Your task to perform on an android device: change the clock display to show seconds Image 0: 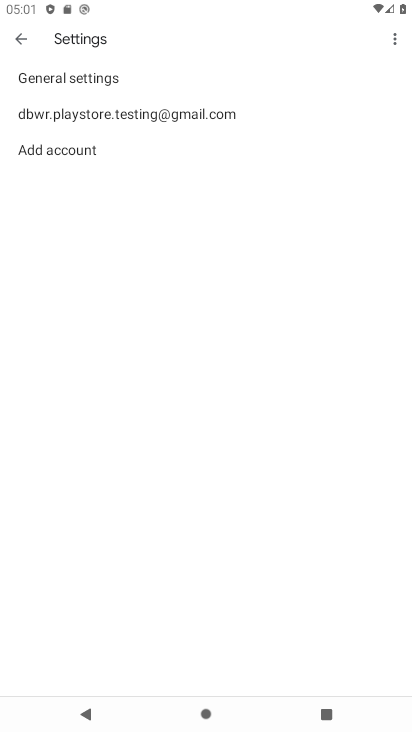
Step 0: press back button
Your task to perform on an android device: change the clock display to show seconds Image 1: 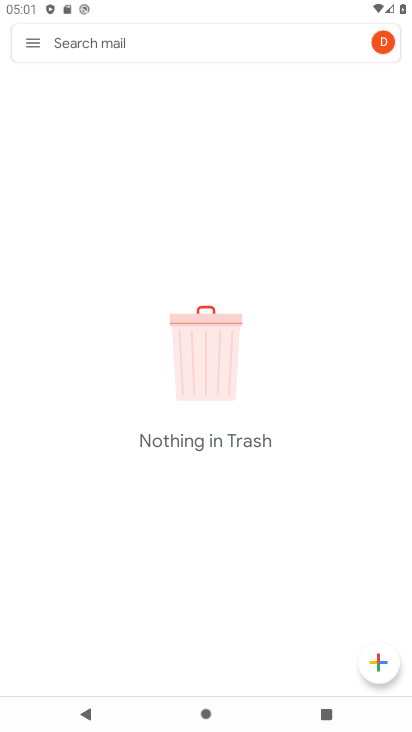
Step 1: press back button
Your task to perform on an android device: change the clock display to show seconds Image 2: 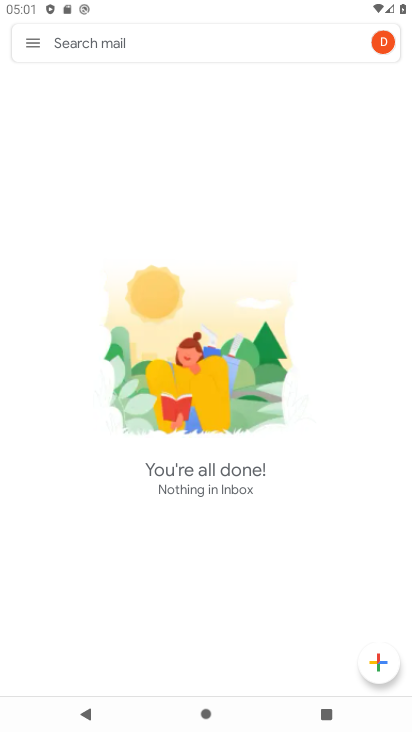
Step 2: press back button
Your task to perform on an android device: change the clock display to show seconds Image 3: 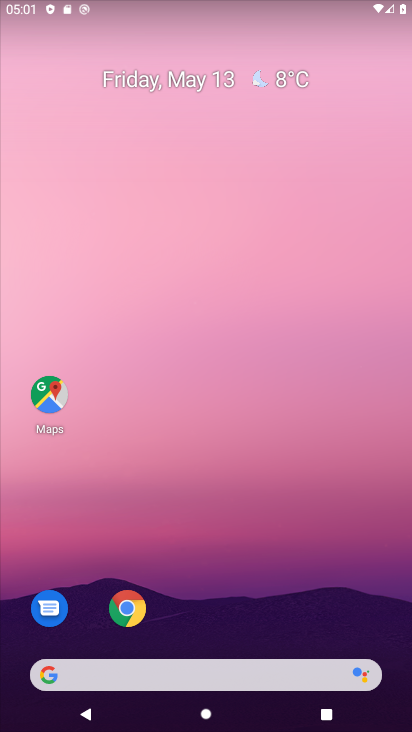
Step 3: drag from (260, 583) to (254, 143)
Your task to perform on an android device: change the clock display to show seconds Image 4: 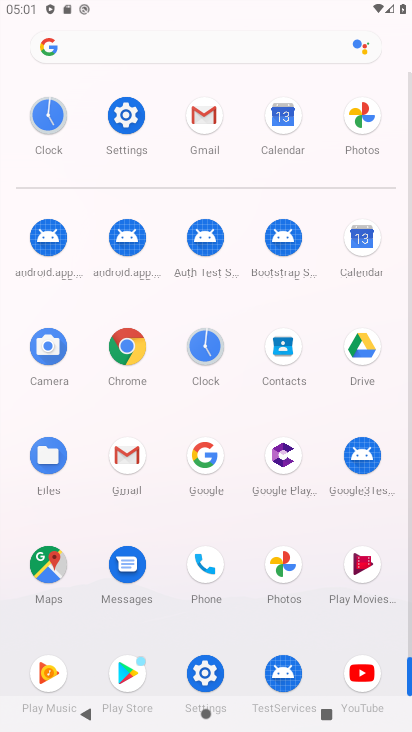
Step 4: click (206, 351)
Your task to perform on an android device: change the clock display to show seconds Image 5: 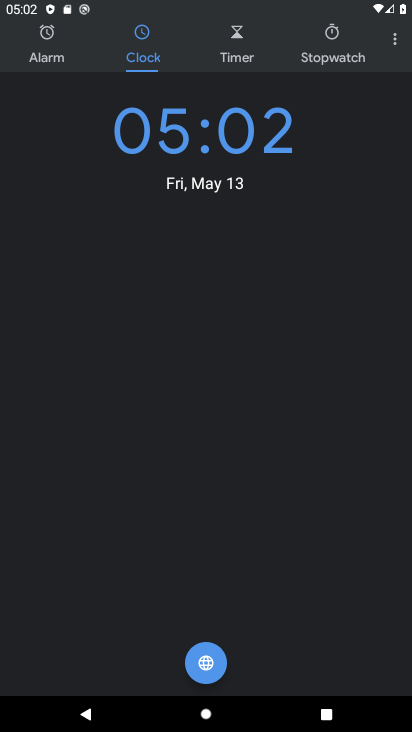
Step 5: click (392, 40)
Your task to perform on an android device: change the clock display to show seconds Image 6: 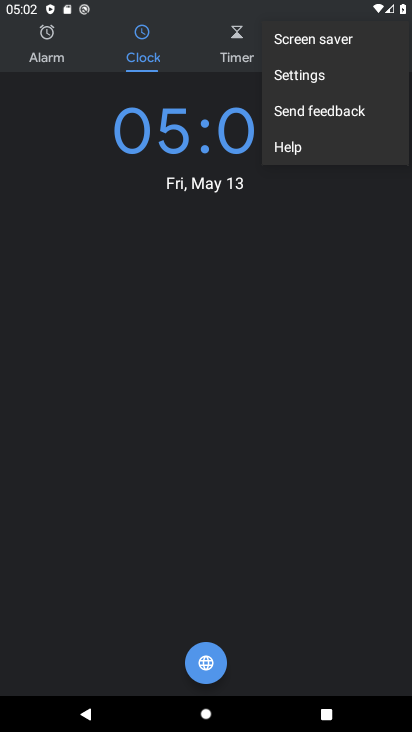
Step 6: click (315, 79)
Your task to perform on an android device: change the clock display to show seconds Image 7: 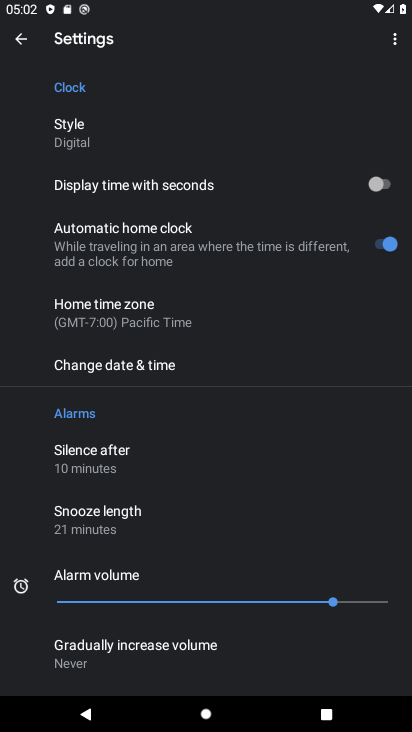
Step 7: click (373, 179)
Your task to perform on an android device: change the clock display to show seconds Image 8: 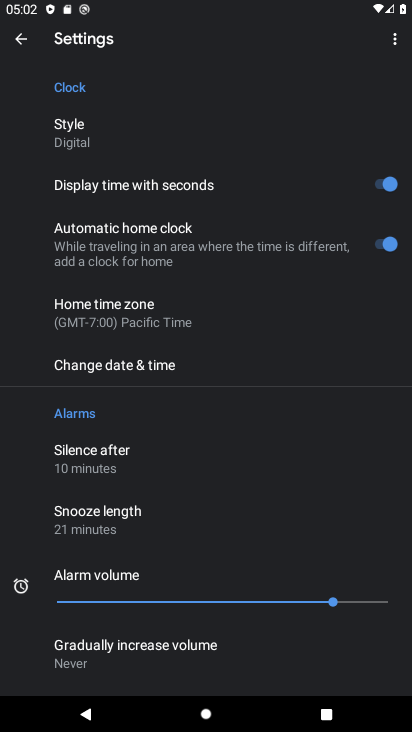
Step 8: task complete